Your task to perform on an android device: allow notifications from all sites in the chrome app Image 0: 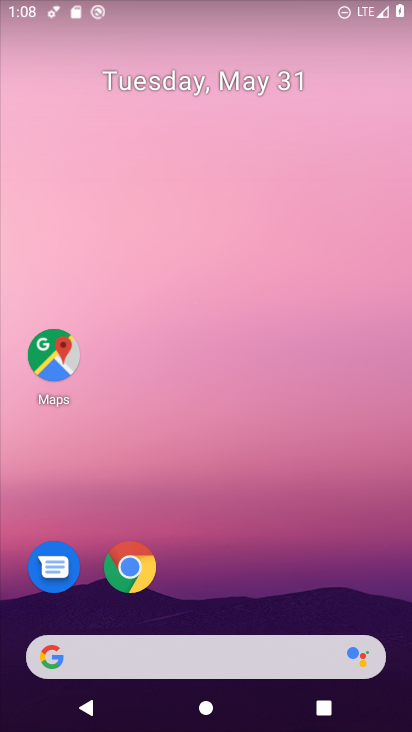
Step 0: click (148, 565)
Your task to perform on an android device: allow notifications from all sites in the chrome app Image 1: 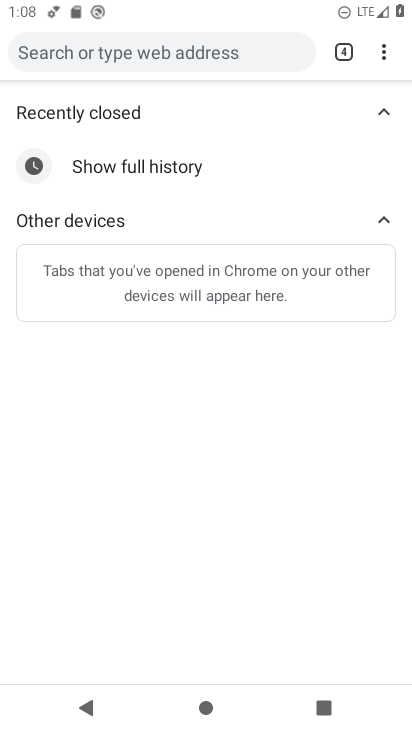
Step 1: click (373, 46)
Your task to perform on an android device: allow notifications from all sites in the chrome app Image 2: 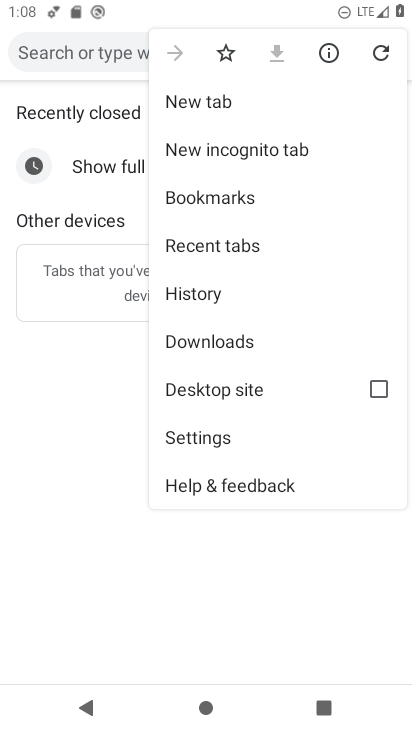
Step 2: click (220, 444)
Your task to perform on an android device: allow notifications from all sites in the chrome app Image 3: 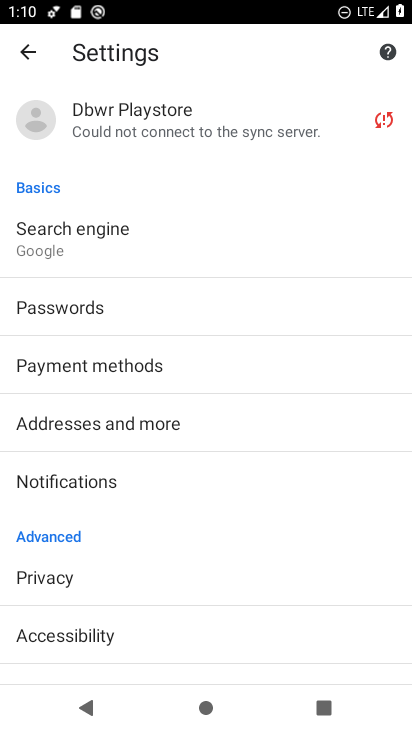
Step 3: drag from (142, 611) to (180, 269)
Your task to perform on an android device: allow notifications from all sites in the chrome app Image 4: 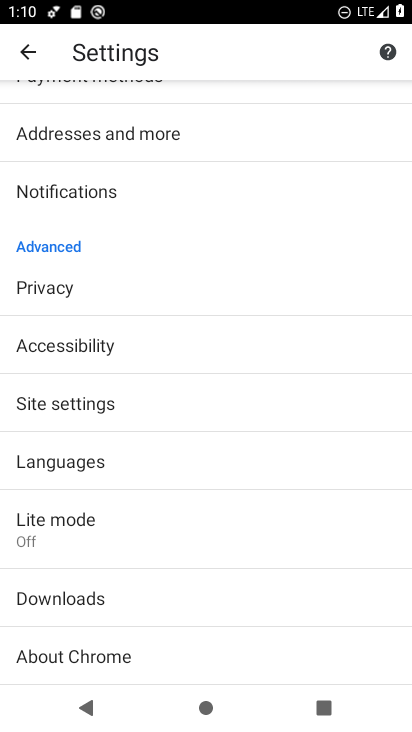
Step 4: click (121, 406)
Your task to perform on an android device: allow notifications from all sites in the chrome app Image 5: 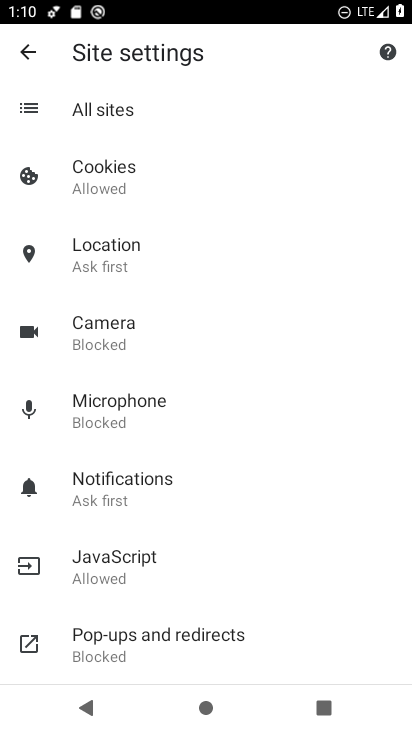
Step 5: click (119, 116)
Your task to perform on an android device: allow notifications from all sites in the chrome app Image 6: 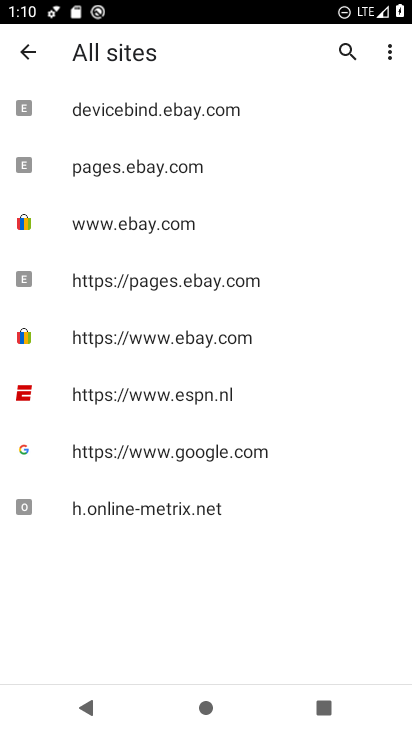
Step 6: click (251, 450)
Your task to perform on an android device: allow notifications from all sites in the chrome app Image 7: 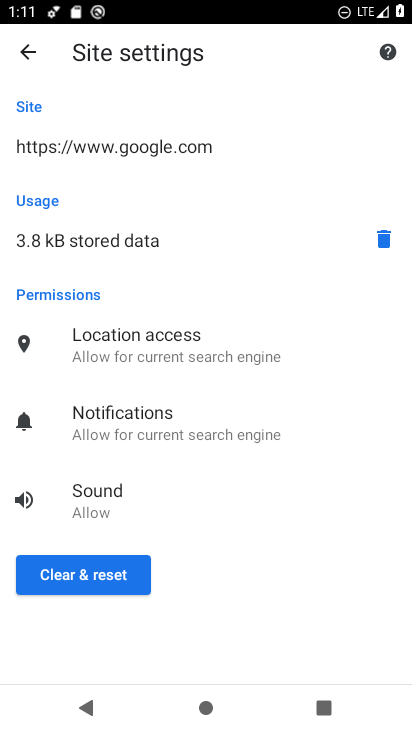
Step 7: click (174, 429)
Your task to perform on an android device: allow notifications from all sites in the chrome app Image 8: 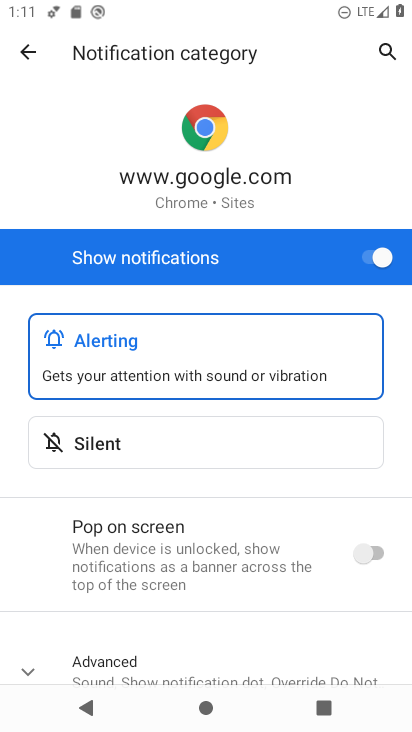
Step 8: task complete